Your task to perform on an android device: Turn off the flashlight Image 0: 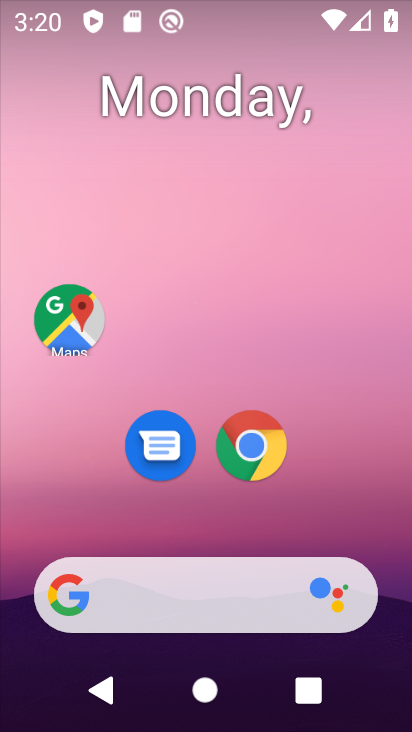
Step 0: drag from (378, 3) to (342, 350)
Your task to perform on an android device: Turn off the flashlight Image 1: 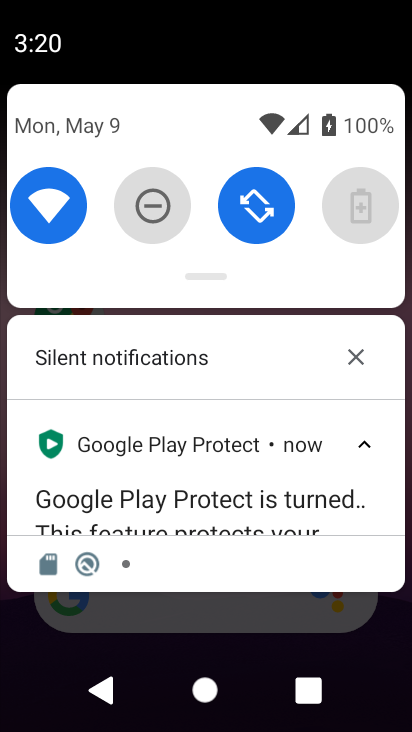
Step 1: task complete